Your task to perform on an android device: Open Yahoo.com Image 0: 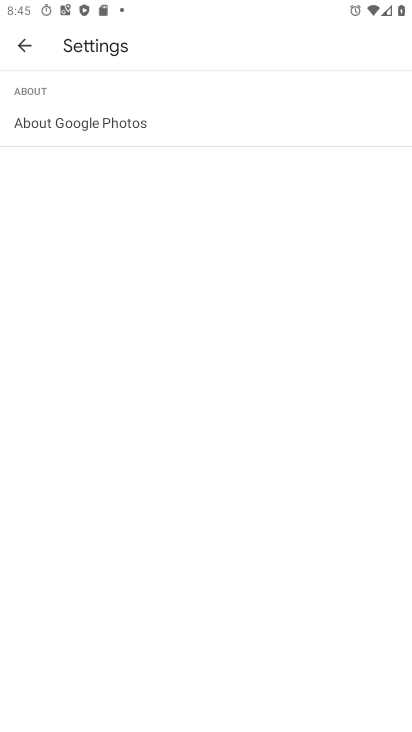
Step 0: press home button
Your task to perform on an android device: Open Yahoo.com Image 1: 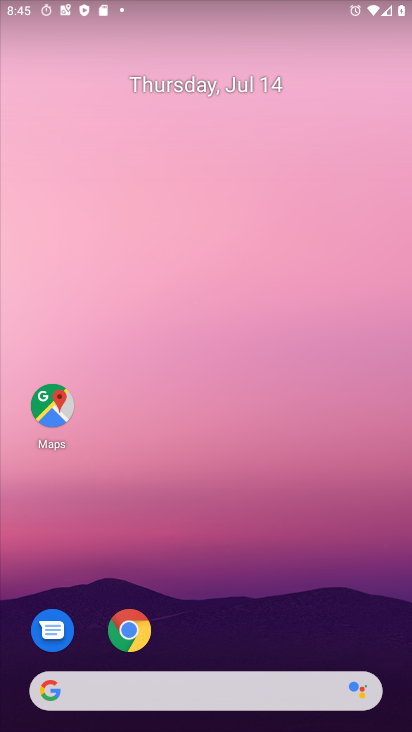
Step 1: click (129, 635)
Your task to perform on an android device: Open Yahoo.com Image 2: 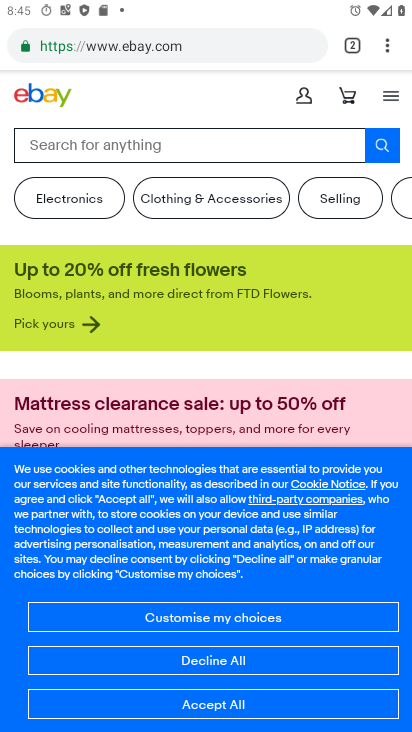
Step 2: click (388, 49)
Your task to perform on an android device: Open Yahoo.com Image 3: 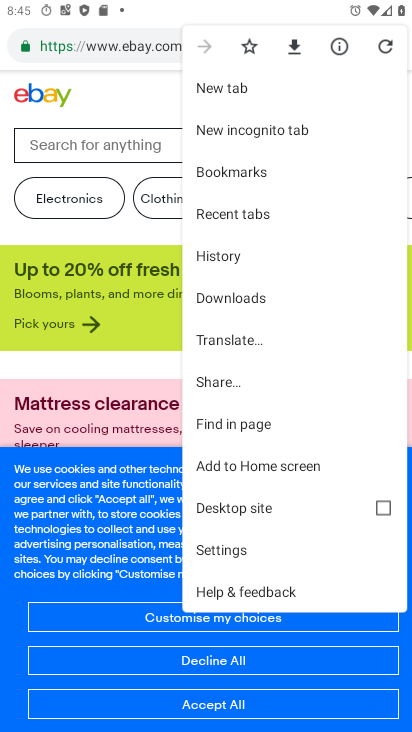
Step 3: click (238, 87)
Your task to perform on an android device: Open Yahoo.com Image 4: 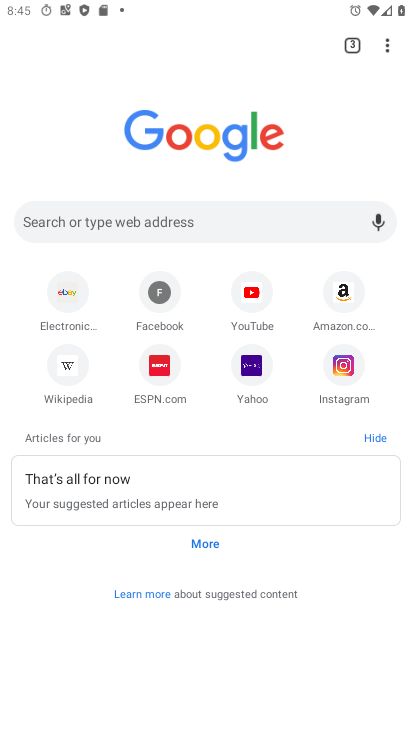
Step 4: click (249, 360)
Your task to perform on an android device: Open Yahoo.com Image 5: 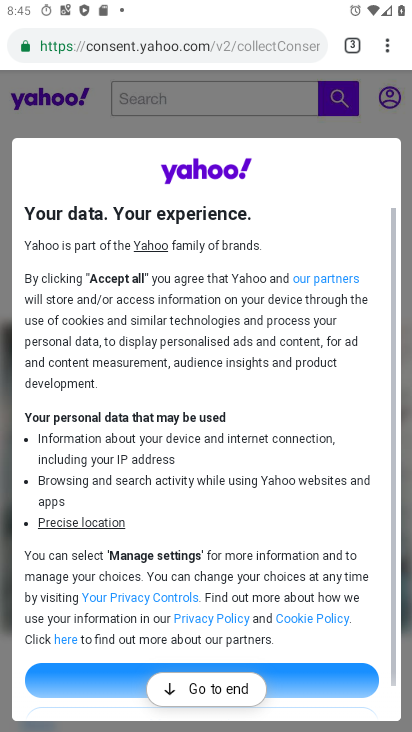
Step 5: task complete